Your task to perform on an android device: turn notification dots on Image 0: 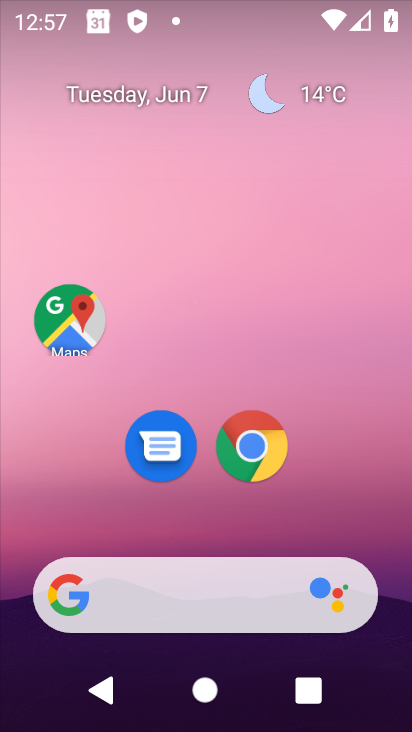
Step 0: drag from (390, 551) to (274, 9)
Your task to perform on an android device: turn notification dots on Image 1: 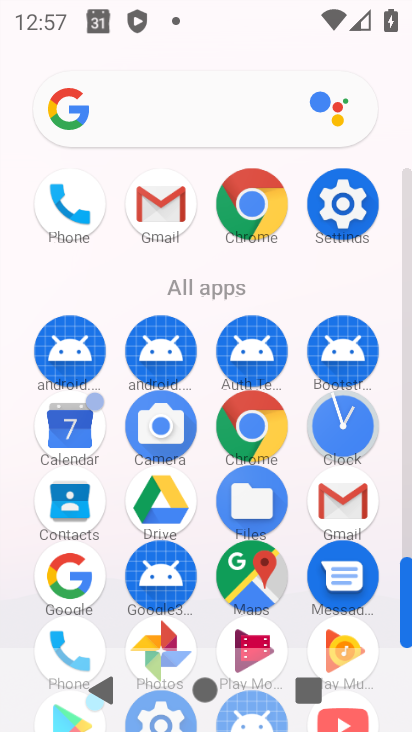
Step 1: drag from (10, 594) to (26, 255)
Your task to perform on an android device: turn notification dots on Image 2: 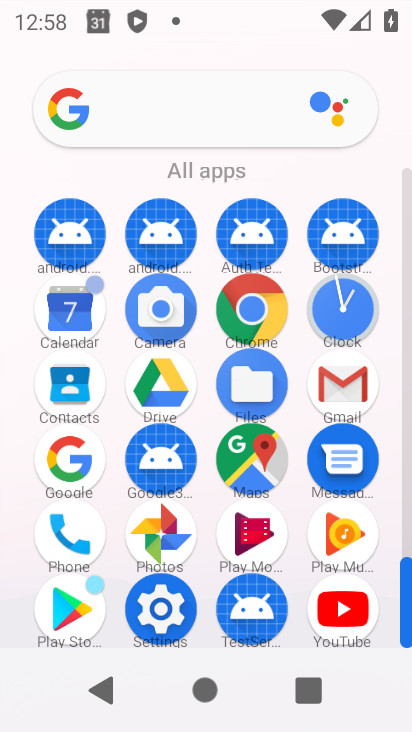
Step 2: drag from (5, 240) to (18, 532)
Your task to perform on an android device: turn notification dots on Image 3: 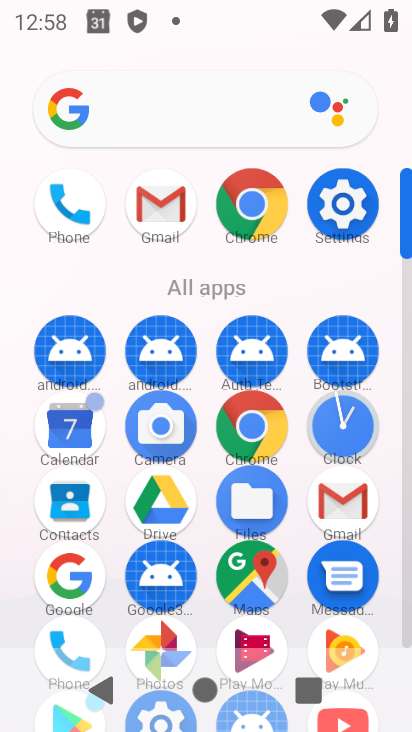
Step 3: click (345, 199)
Your task to perform on an android device: turn notification dots on Image 4: 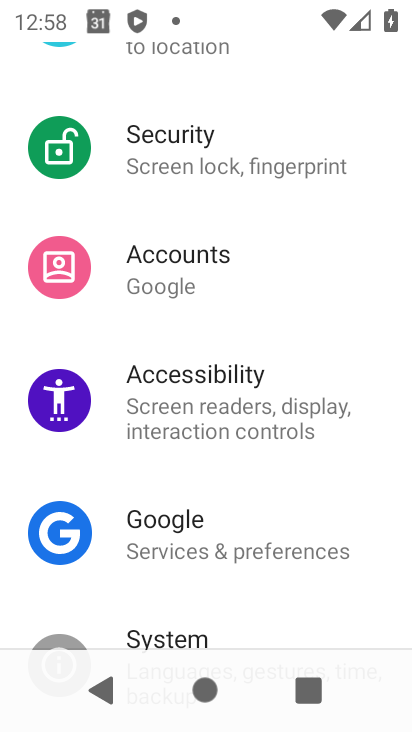
Step 4: drag from (249, 193) to (261, 614)
Your task to perform on an android device: turn notification dots on Image 5: 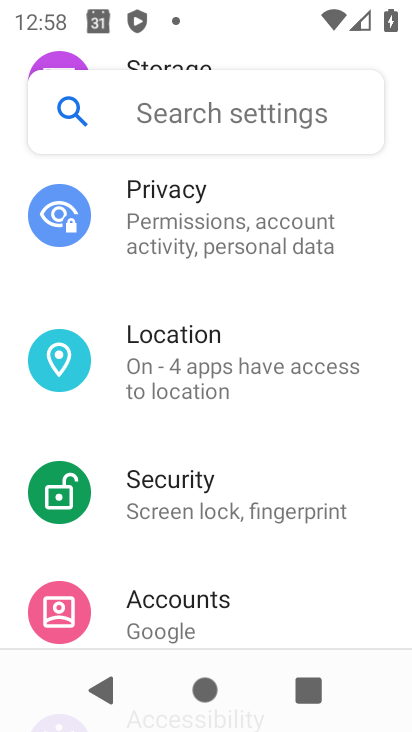
Step 5: drag from (215, 210) to (243, 578)
Your task to perform on an android device: turn notification dots on Image 6: 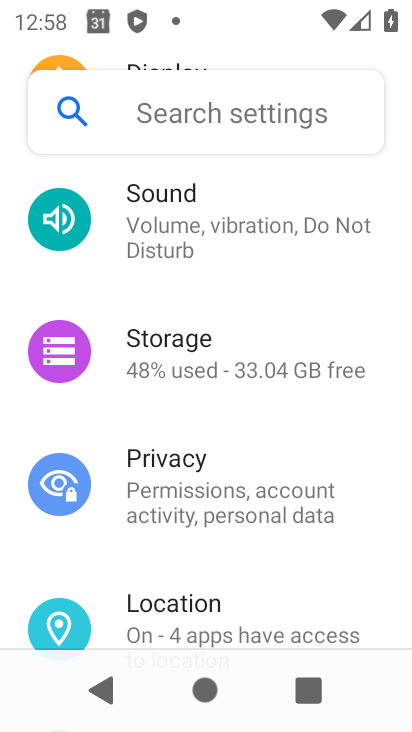
Step 6: drag from (236, 234) to (265, 592)
Your task to perform on an android device: turn notification dots on Image 7: 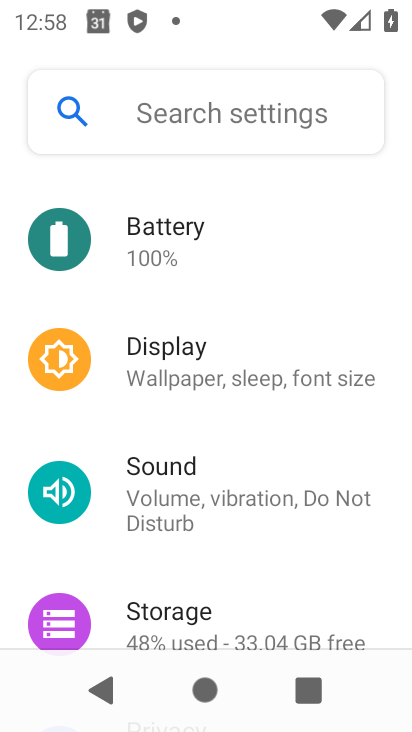
Step 7: drag from (237, 270) to (262, 566)
Your task to perform on an android device: turn notification dots on Image 8: 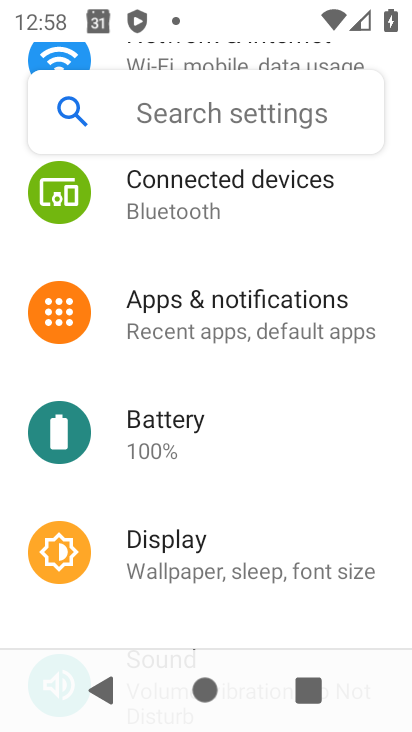
Step 8: click (227, 305)
Your task to perform on an android device: turn notification dots on Image 9: 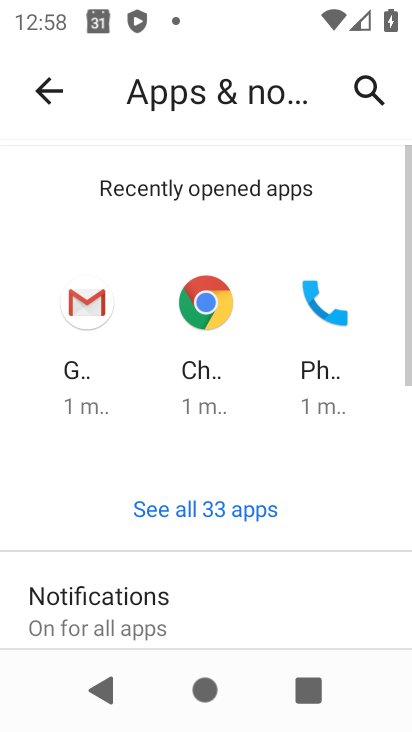
Step 9: drag from (256, 334) to (256, 263)
Your task to perform on an android device: turn notification dots on Image 10: 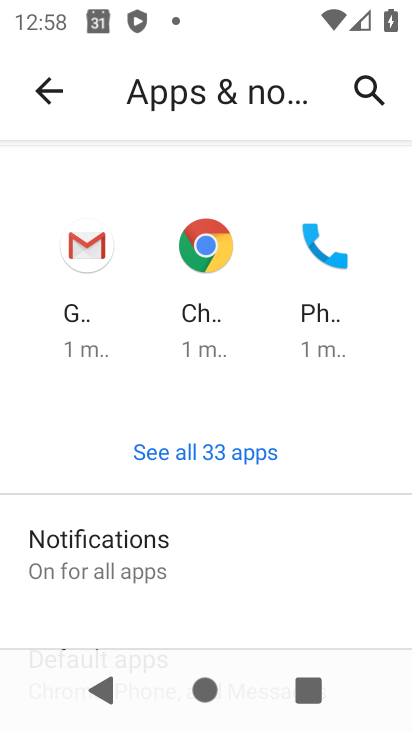
Step 10: drag from (222, 558) to (219, 190)
Your task to perform on an android device: turn notification dots on Image 11: 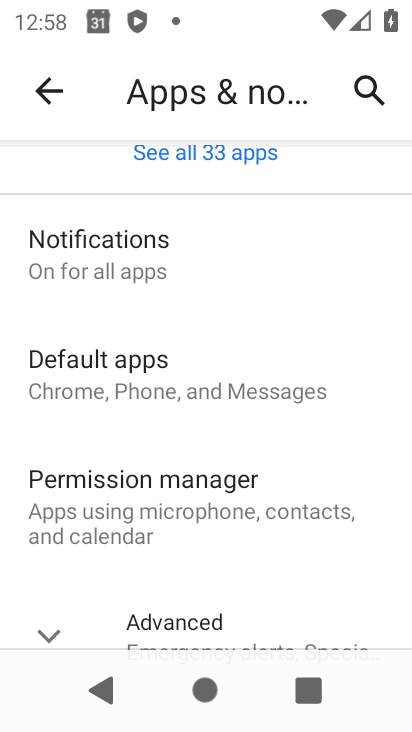
Step 11: click (163, 259)
Your task to perform on an android device: turn notification dots on Image 12: 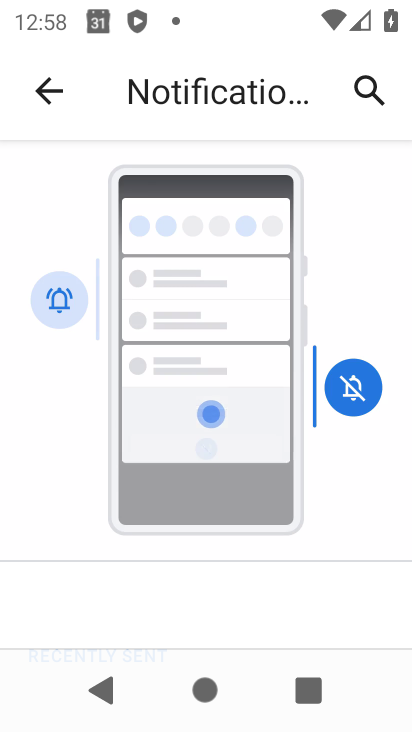
Step 12: drag from (100, 540) to (138, 194)
Your task to perform on an android device: turn notification dots on Image 13: 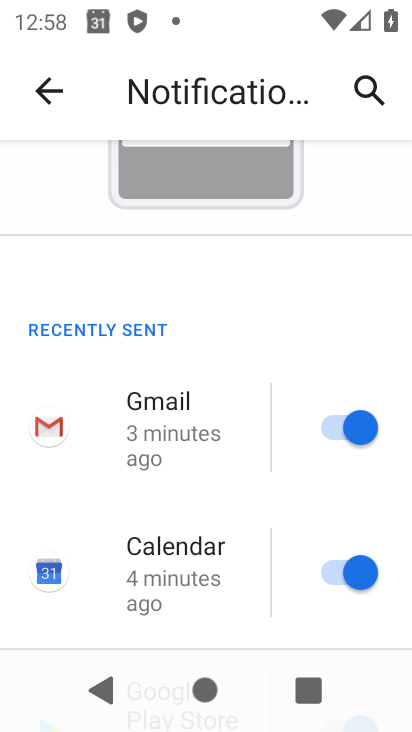
Step 13: drag from (151, 595) to (203, 210)
Your task to perform on an android device: turn notification dots on Image 14: 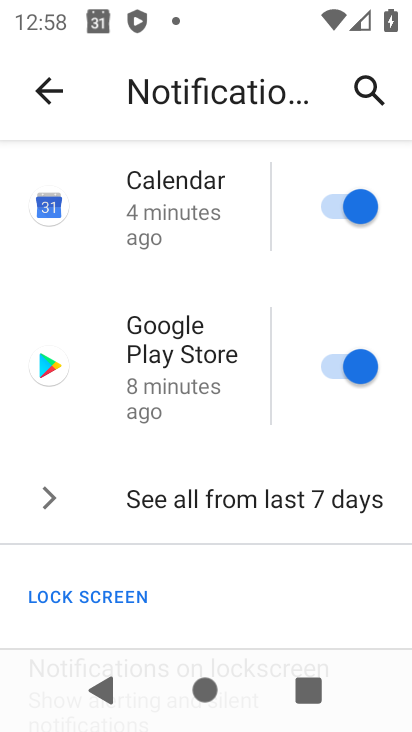
Step 14: drag from (208, 559) to (219, 140)
Your task to perform on an android device: turn notification dots on Image 15: 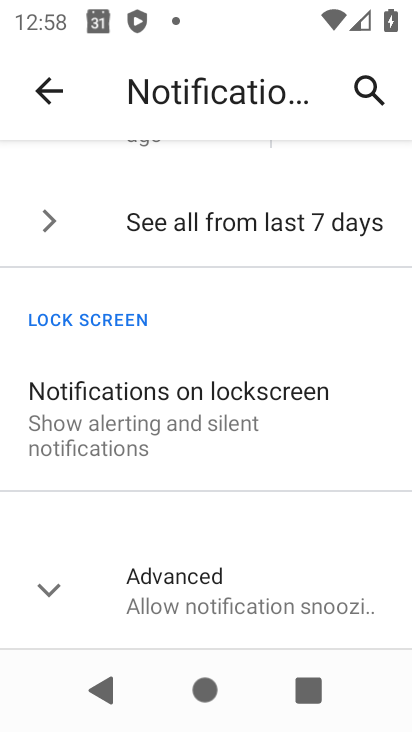
Step 15: click (111, 582)
Your task to perform on an android device: turn notification dots on Image 16: 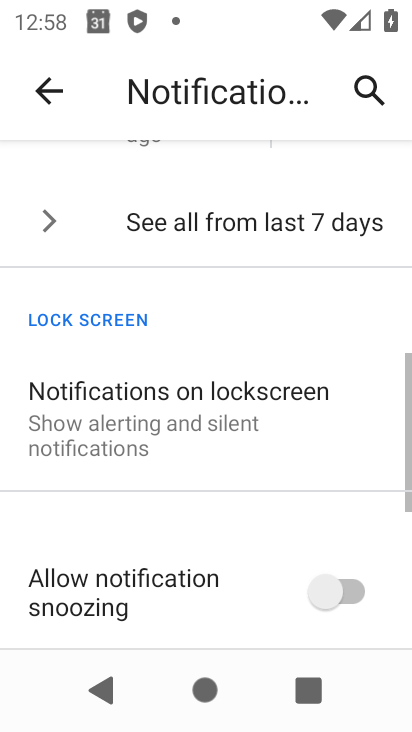
Step 16: task complete